Your task to perform on an android device: check android version Image 0: 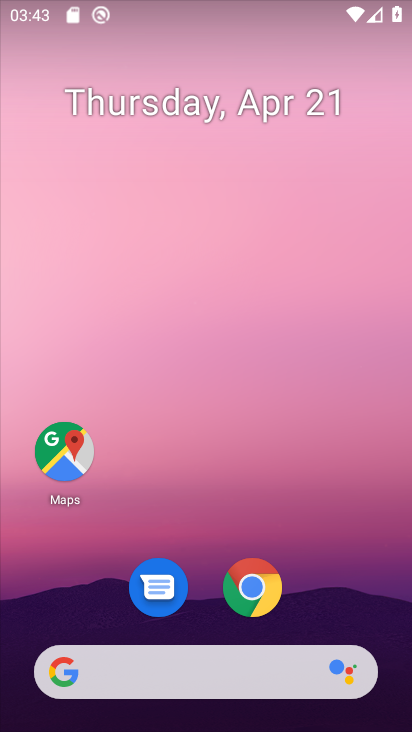
Step 0: drag from (336, 605) to (335, 192)
Your task to perform on an android device: check android version Image 1: 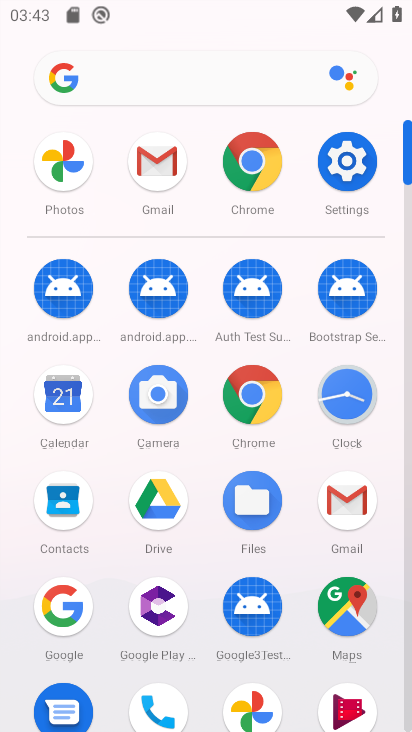
Step 1: click (353, 180)
Your task to perform on an android device: check android version Image 2: 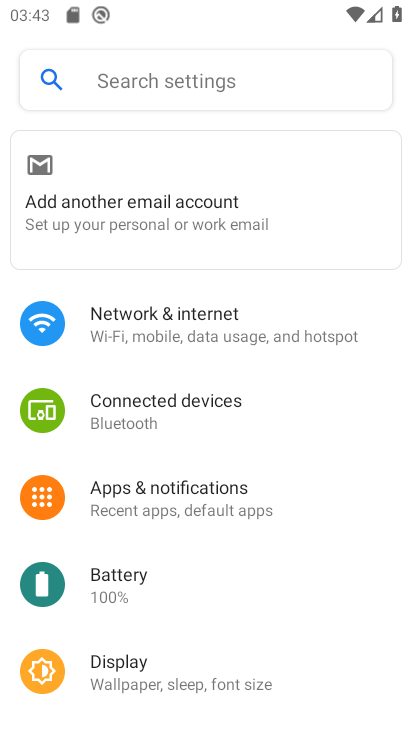
Step 2: drag from (351, 593) to (361, 467)
Your task to perform on an android device: check android version Image 3: 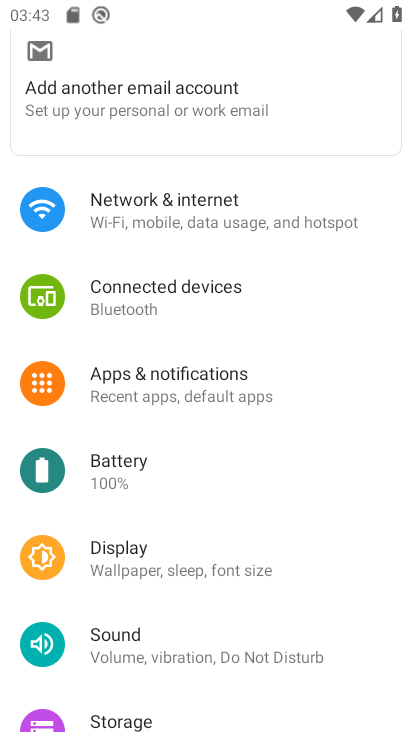
Step 3: drag from (351, 580) to (341, 477)
Your task to perform on an android device: check android version Image 4: 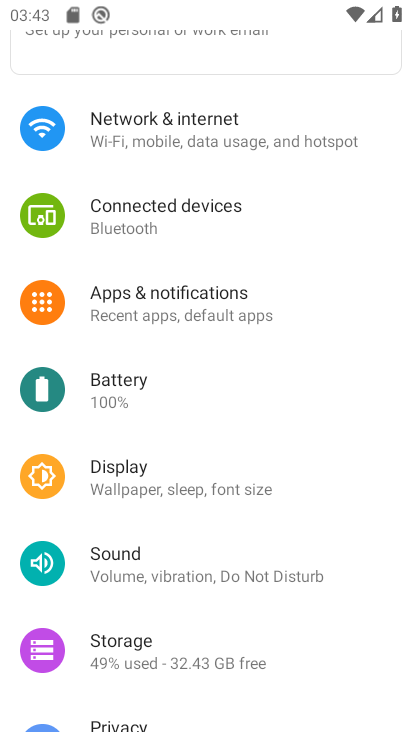
Step 4: drag from (361, 598) to (357, 465)
Your task to perform on an android device: check android version Image 5: 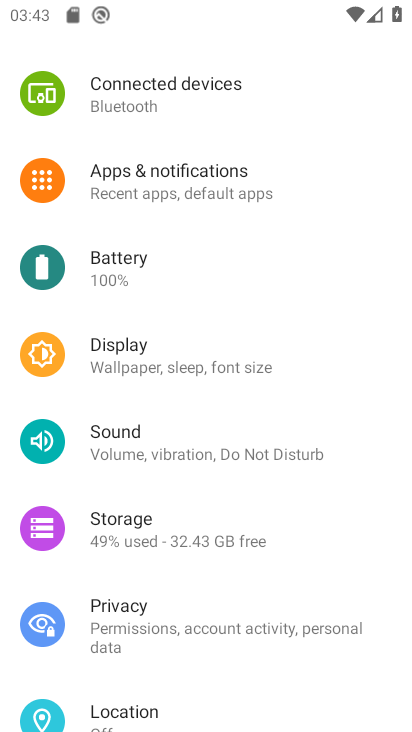
Step 5: drag from (359, 559) to (347, 453)
Your task to perform on an android device: check android version Image 6: 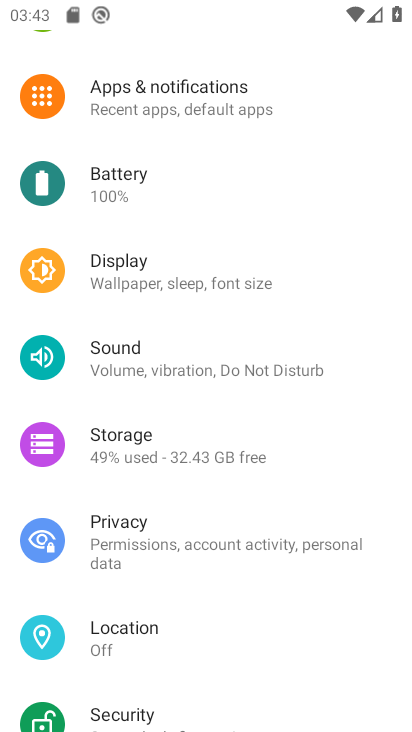
Step 6: drag from (333, 618) to (347, 482)
Your task to perform on an android device: check android version Image 7: 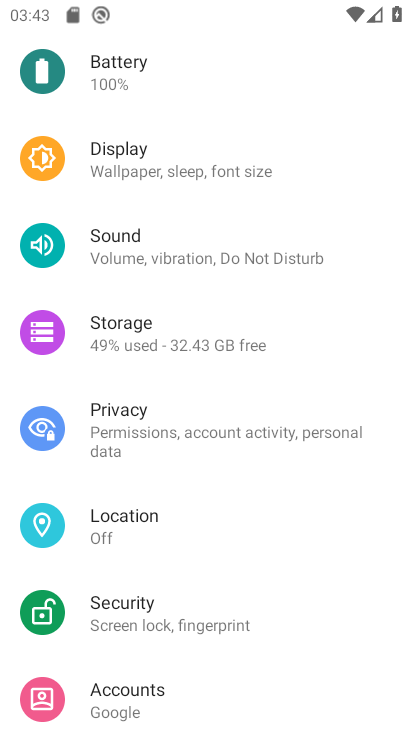
Step 7: drag from (348, 605) to (361, 473)
Your task to perform on an android device: check android version Image 8: 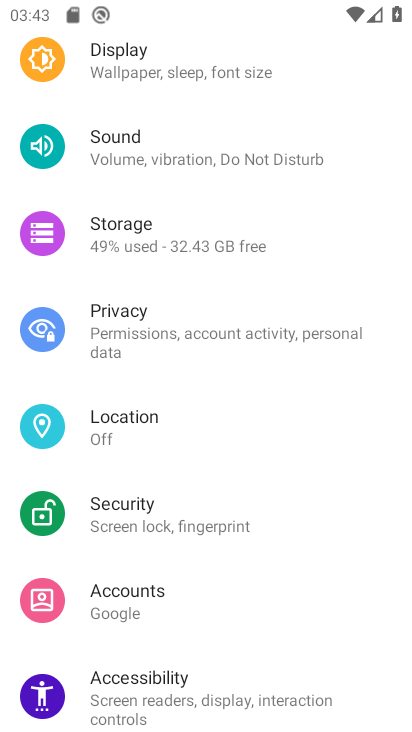
Step 8: drag from (348, 606) to (341, 462)
Your task to perform on an android device: check android version Image 9: 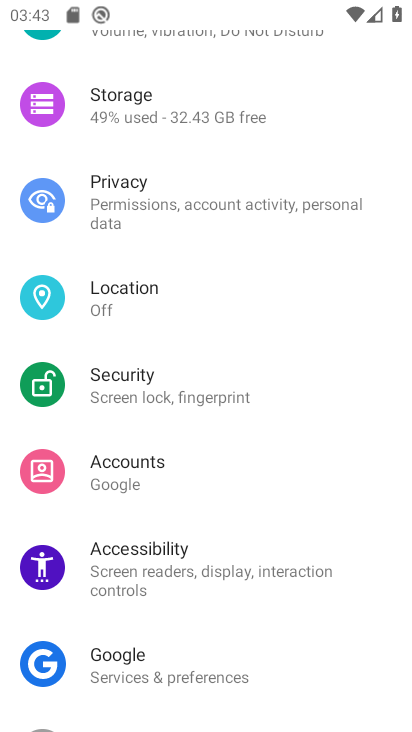
Step 9: drag from (341, 618) to (348, 485)
Your task to perform on an android device: check android version Image 10: 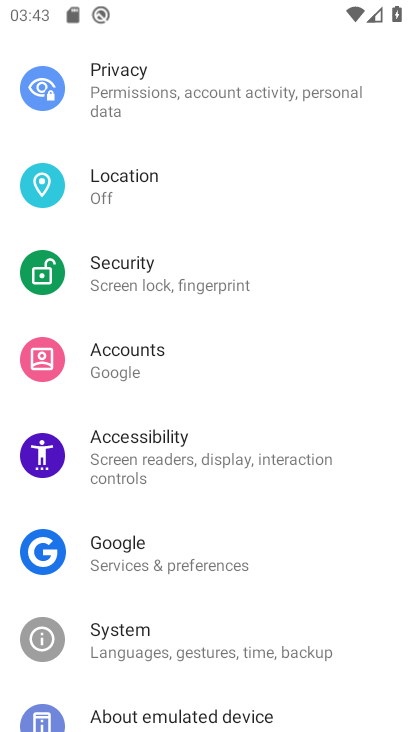
Step 10: drag from (356, 622) to (351, 497)
Your task to perform on an android device: check android version Image 11: 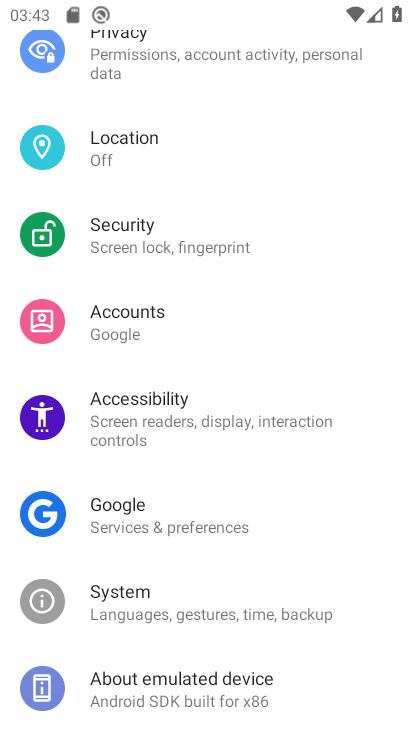
Step 11: click (306, 606)
Your task to perform on an android device: check android version Image 12: 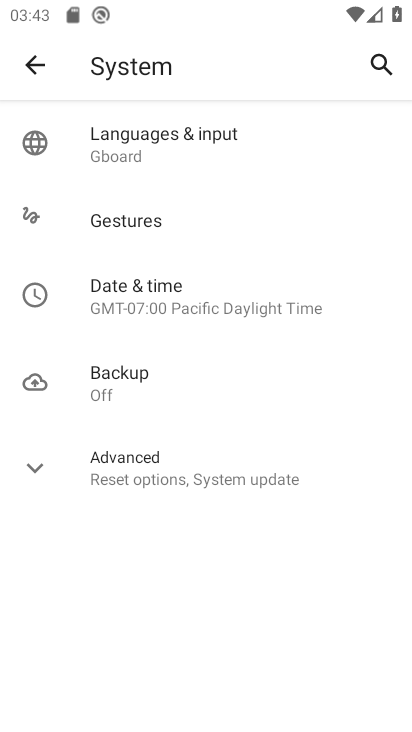
Step 12: click (294, 476)
Your task to perform on an android device: check android version Image 13: 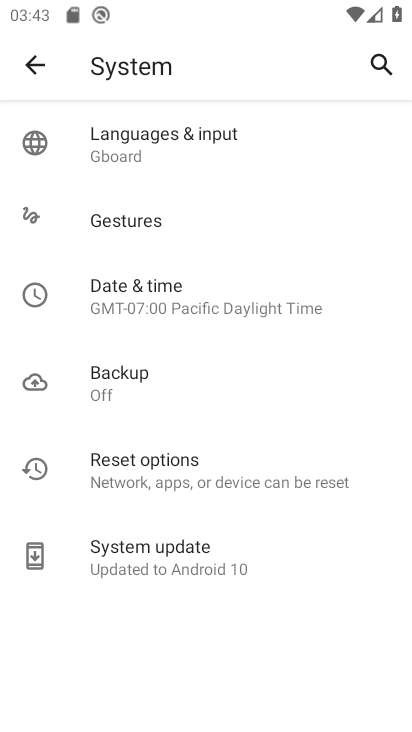
Step 13: click (245, 569)
Your task to perform on an android device: check android version Image 14: 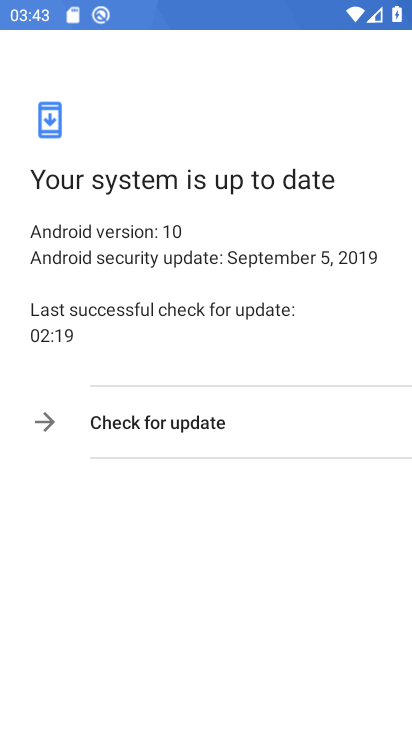
Step 14: task complete